Your task to perform on an android device: Search for the new Apple Watch on Best Buy Image 0: 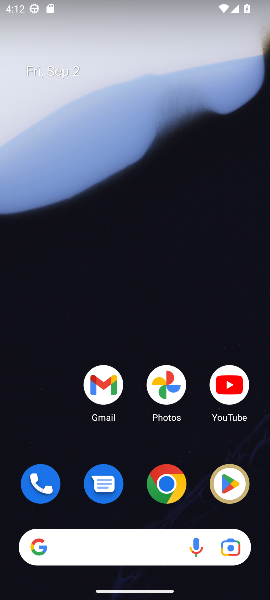
Step 0: click (170, 483)
Your task to perform on an android device: Search for the new Apple Watch on Best Buy Image 1: 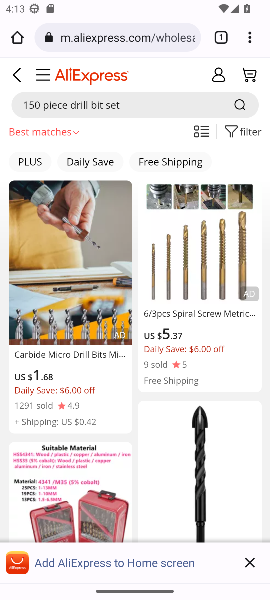
Step 1: click (151, 35)
Your task to perform on an android device: Search for the new Apple Watch on Best Buy Image 2: 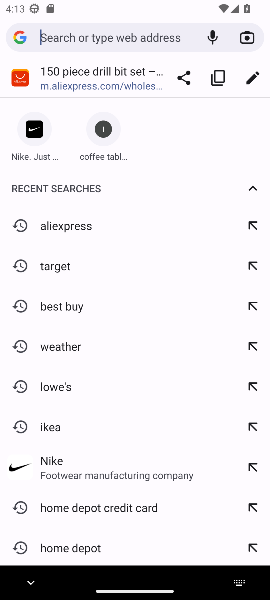
Step 2: type " Best Buy"
Your task to perform on an android device: Search for the new Apple Watch on Best Buy Image 3: 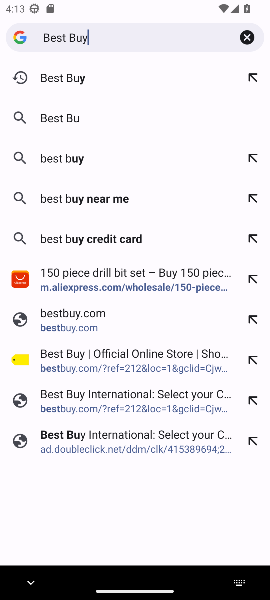
Step 3: press enter
Your task to perform on an android device: Search for the new Apple Watch on Best Buy Image 4: 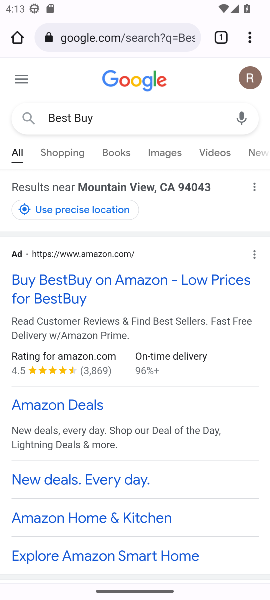
Step 4: drag from (108, 392) to (177, 207)
Your task to perform on an android device: Search for the new Apple Watch on Best Buy Image 5: 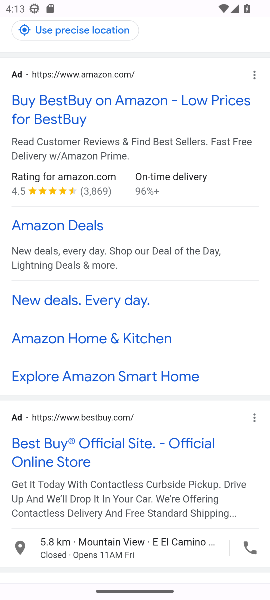
Step 5: click (106, 441)
Your task to perform on an android device: Search for the new Apple Watch on Best Buy Image 6: 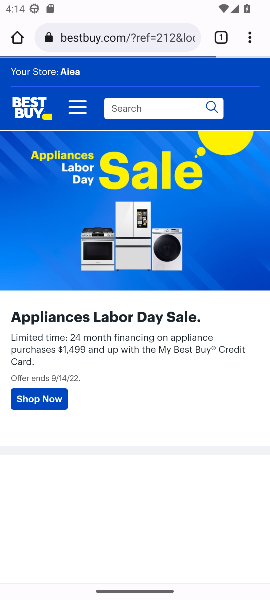
Step 6: click (169, 102)
Your task to perform on an android device: Search for the new Apple Watch on Best Buy Image 7: 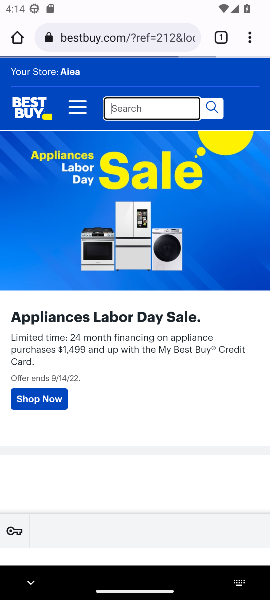
Step 7: click (168, 111)
Your task to perform on an android device: Search for the new Apple Watch on Best Buy Image 8: 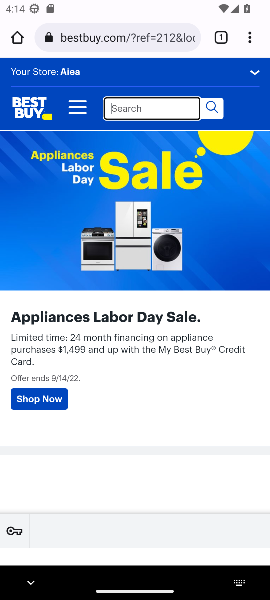
Step 8: click (207, 106)
Your task to perform on an android device: Search for the new Apple Watch on Best Buy Image 9: 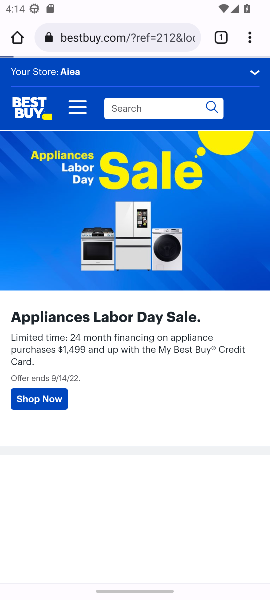
Step 9: click (170, 107)
Your task to perform on an android device: Search for the new Apple Watch on Best Buy Image 10: 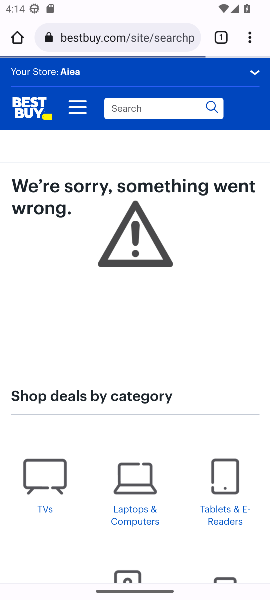
Step 10: click (165, 106)
Your task to perform on an android device: Search for the new Apple Watch on Best Buy Image 11: 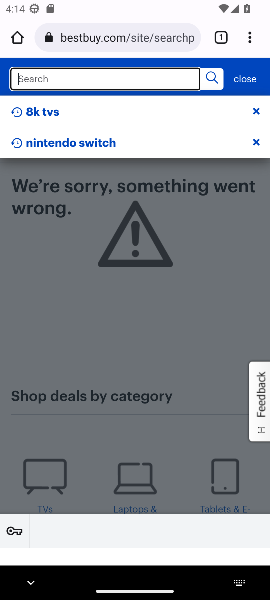
Step 11: type "Apple Watch"
Your task to perform on an android device: Search for the new Apple Watch on Best Buy Image 12: 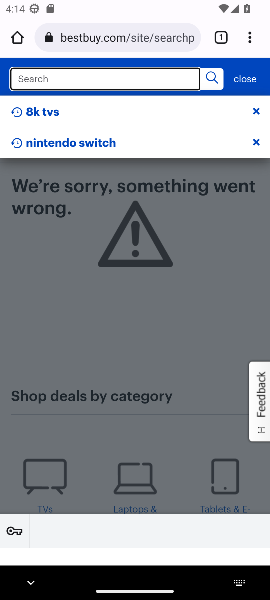
Step 12: press enter
Your task to perform on an android device: Search for the new Apple Watch on Best Buy Image 13: 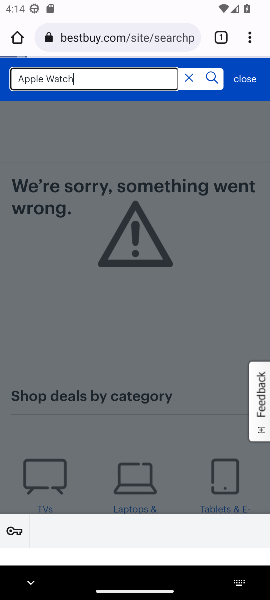
Step 13: click (211, 74)
Your task to perform on an android device: Search for the new Apple Watch on Best Buy Image 14: 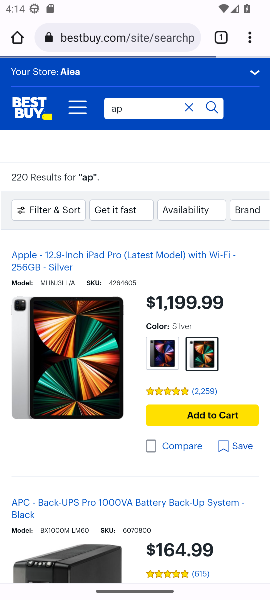
Step 14: click (190, 103)
Your task to perform on an android device: Search for the new Apple Watch on Best Buy Image 15: 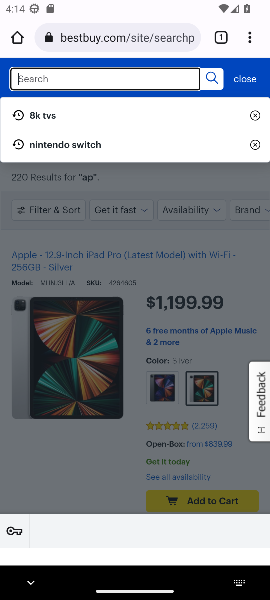
Step 15: type "Apple Watch "
Your task to perform on an android device: Search for the new Apple Watch on Best Buy Image 16: 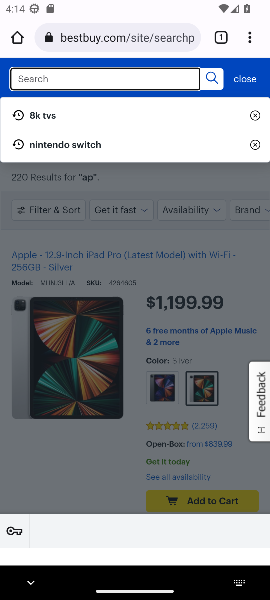
Step 16: press enter
Your task to perform on an android device: Search for the new Apple Watch on Best Buy Image 17: 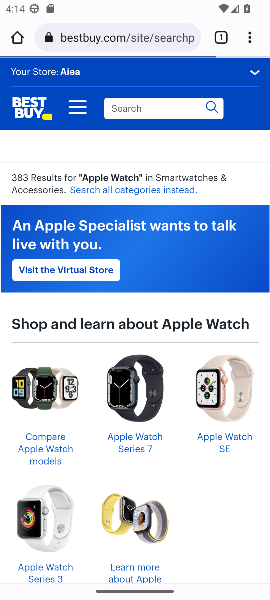
Step 17: task complete